Your task to perform on an android device: Open the clock app Image 0: 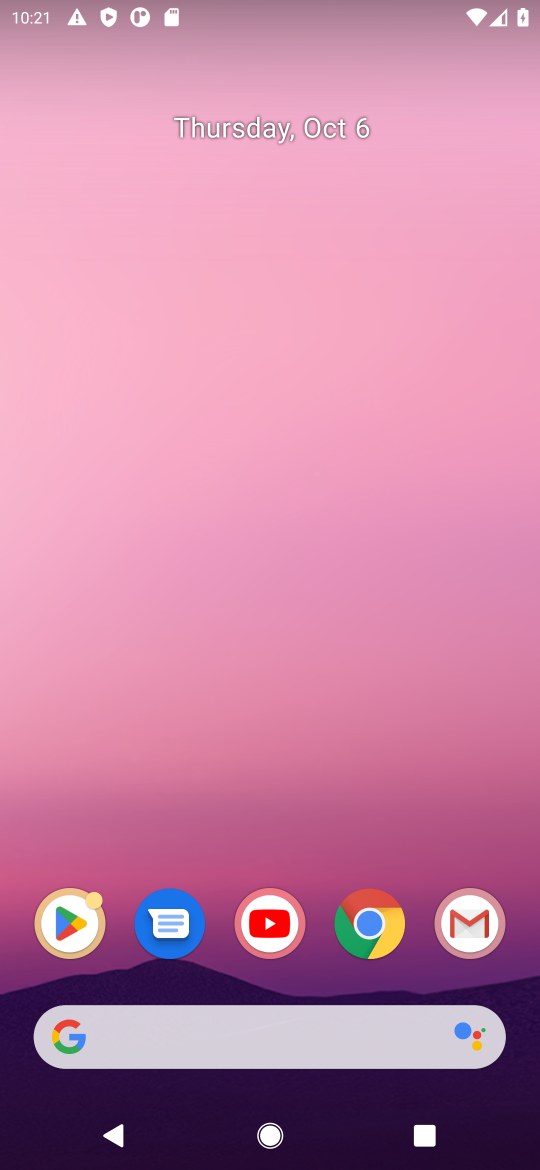
Step 0: drag from (324, 946) to (317, 86)
Your task to perform on an android device: Open the clock app Image 1: 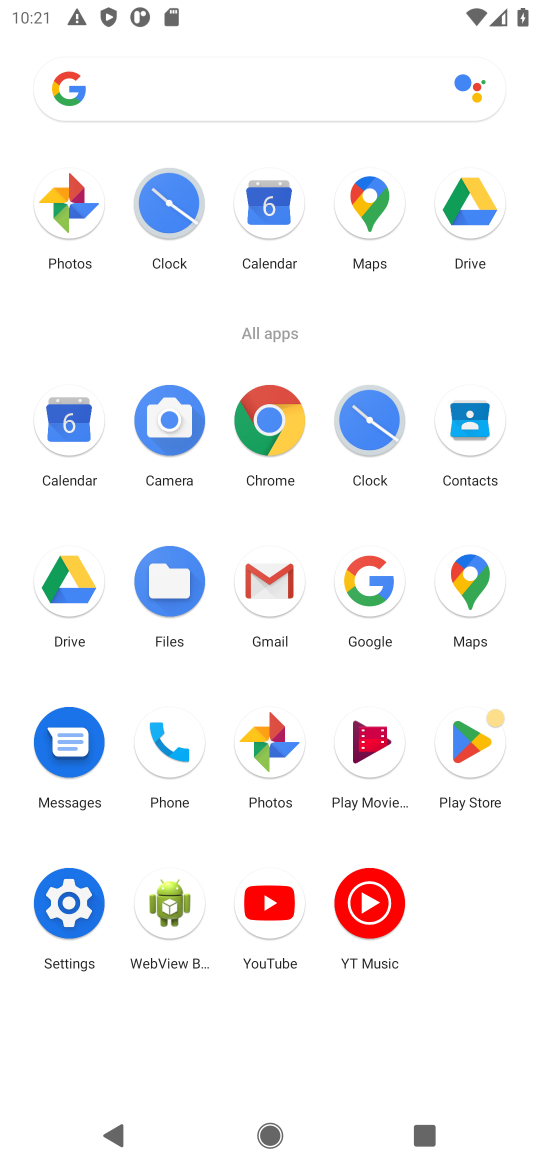
Step 1: click (171, 214)
Your task to perform on an android device: Open the clock app Image 2: 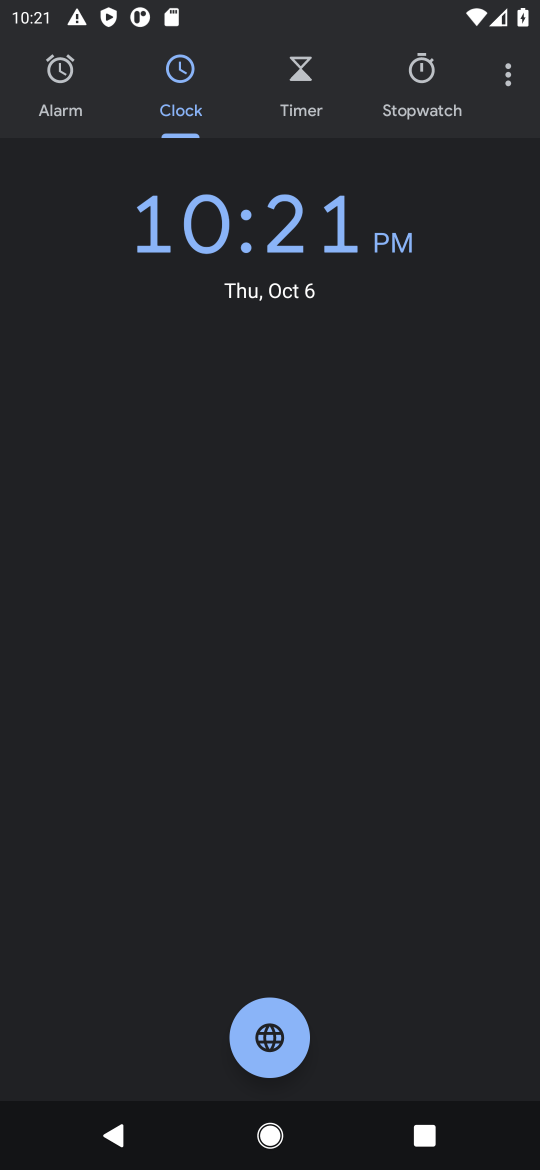
Step 2: task complete